Your task to perform on an android device: make emails show in primary in the gmail app Image 0: 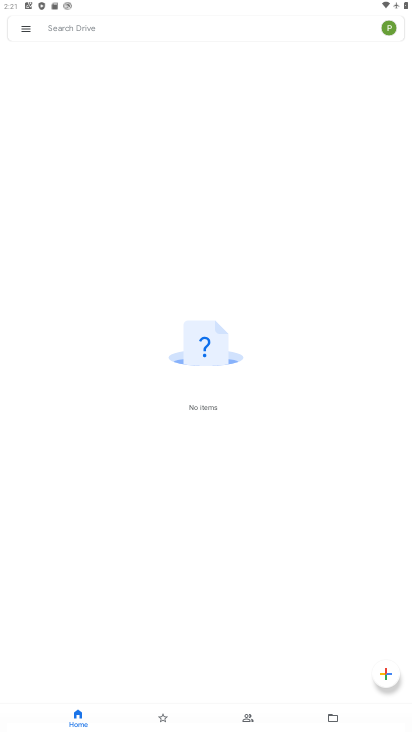
Step 0: press home button
Your task to perform on an android device: make emails show in primary in the gmail app Image 1: 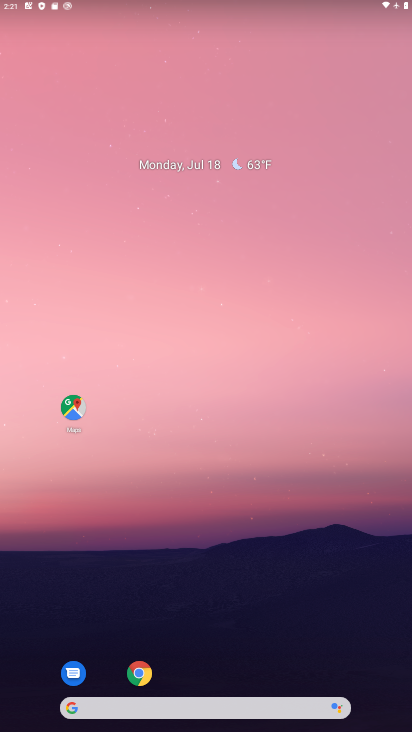
Step 1: drag from (198, 612) to (201, 170)
Your task to perform on an android device: make emails show in primary in the gmail app Image 2: 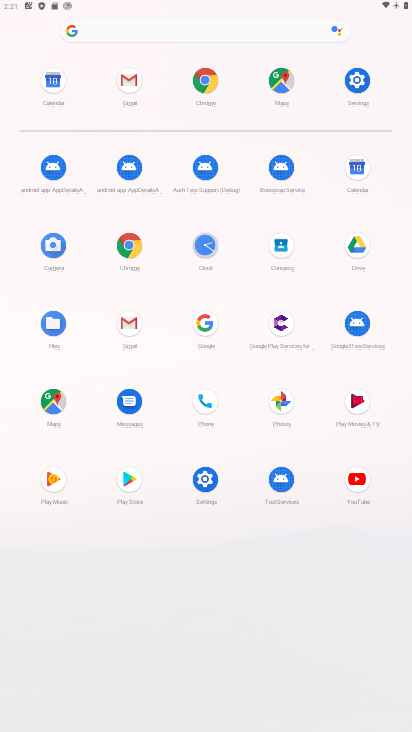
Step 2: click (129, 314)
Your task to perform on an android device: make emails show in primary in the gmail app Image 3: 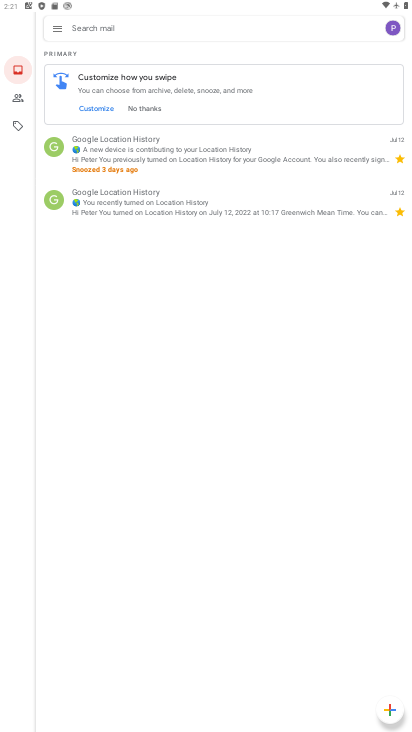
Step 3: click (54, 31)
Your task to perform on an android device: make emails show in primary in the gmail app Image 4: 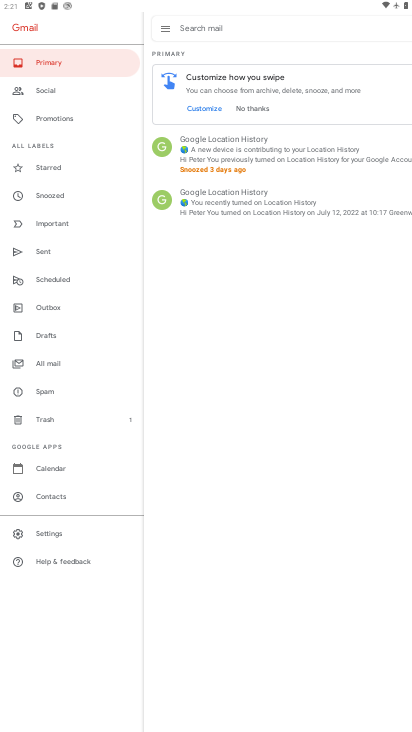
Step 4: click (69, 538)
Your task to perform on an android device: make emails show in primary in the gmail app Image 5: 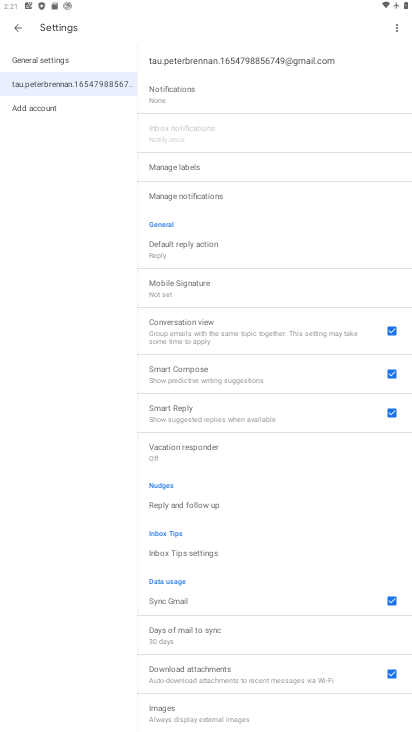
Step 5: click (74, 47)
Your task to perform on an android device: make emails show in primary in the gmail app Image 6: 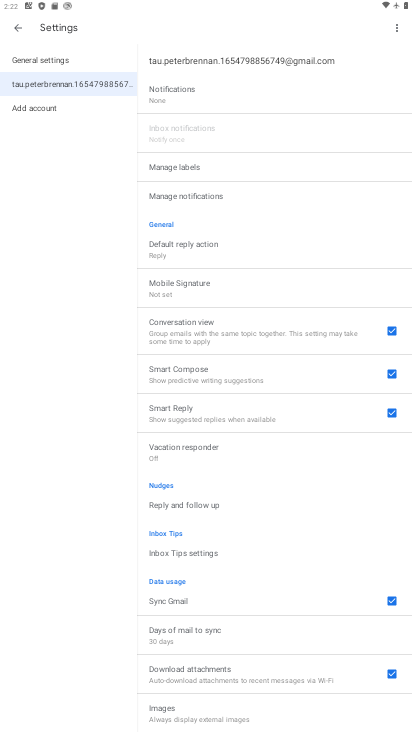
Step 6: click (54, 50)
Your task to perform on an android device: make emails show in primary in the gmail app Image 7: 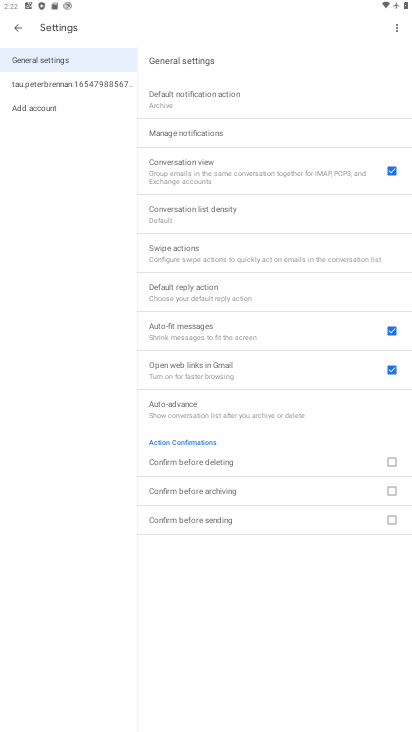
Step 7: task complete